Your task to perform on an android device: find photos in the google photos app Image 0: 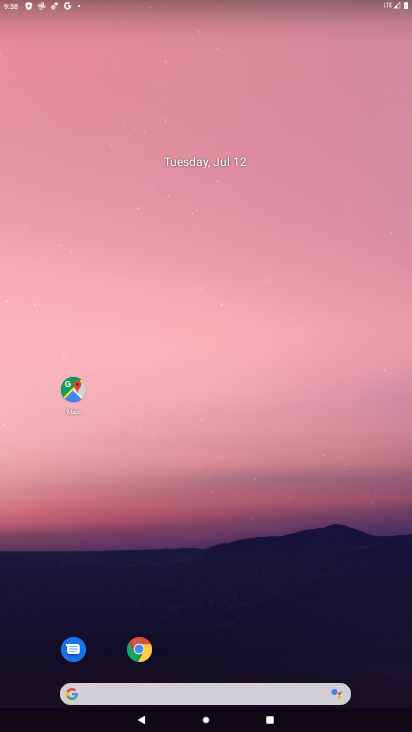
Step 0: drag from (239, 634) to (310, 140)
Your task to perform on an android device: find photos in the google photos app Image 1: 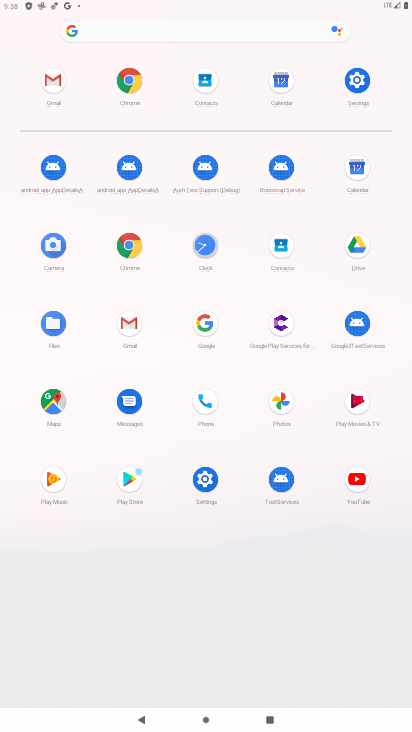
Step 1: click (285, 414)
Your task to perform on an android device: find photos in the google photos app Image 2: 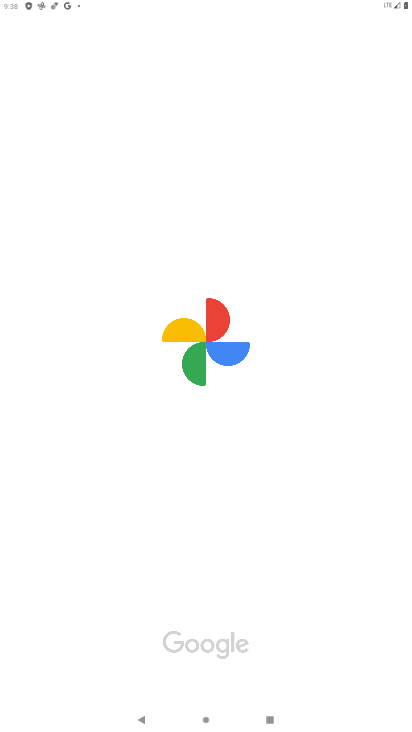
Step 2: task complete